Your task to perform on an android device: turn notification dots on Image 0: 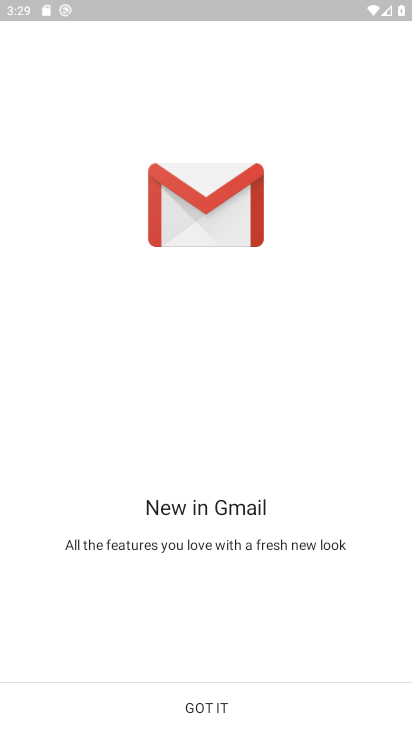
Step 0: click (193, 699)
Your task to perform on an android device: turn notification dots on Image 1: 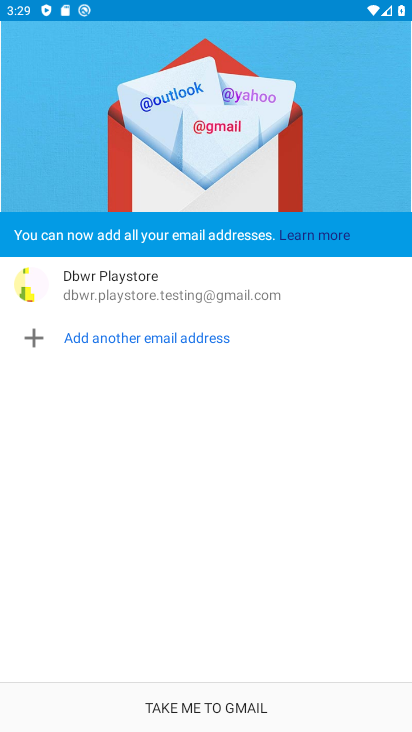
Step 1: press home button
Your task to perform on an android device: turn notification dots on Image 2: 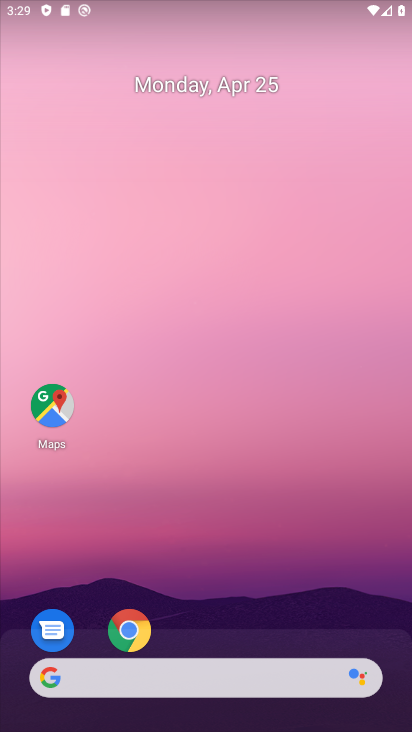
Step 2: drag from (308, 590) to (299, 41)
Your task to perform on an android device: turn notification dots on Image 3: 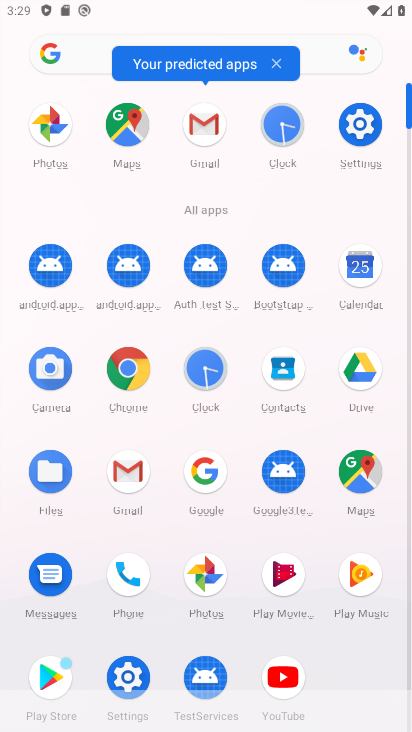
Step 3: click (370, 117)
Your task to perform on an android device: turn notification dots on Image 4: 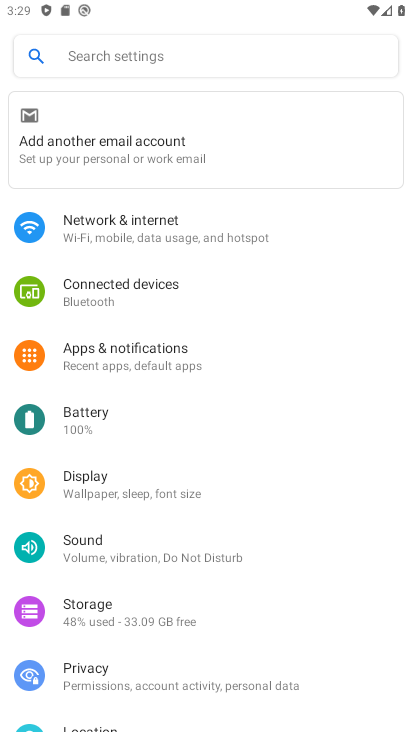
Step 4: click (182, 344)
Your task to perform on an android device: turn notification dots on Image 5: 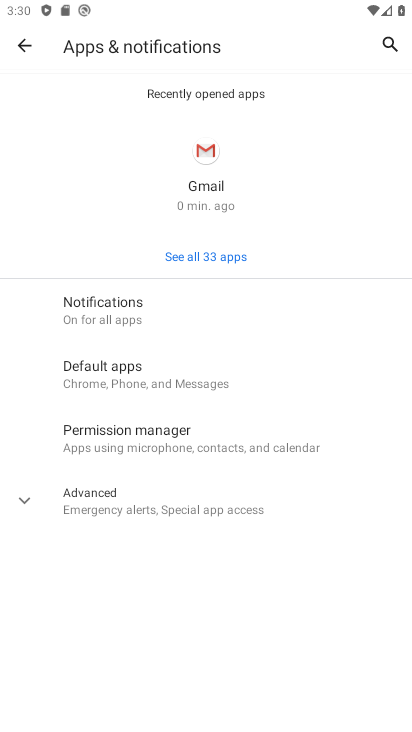
Step 5: click (159, 508)
Your task to perform on an android device: turn notification dots on Image 6: 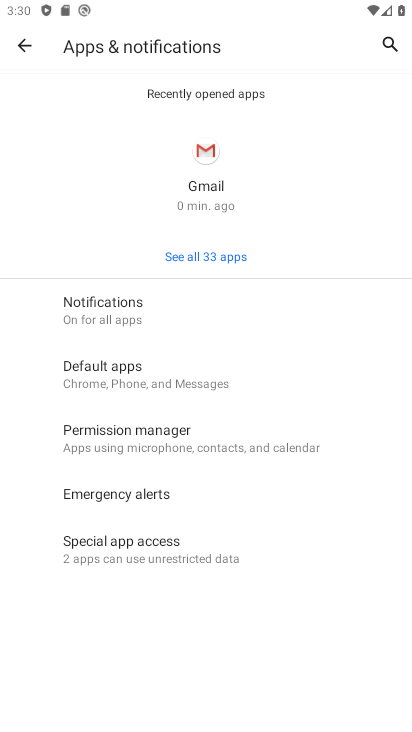
Step 6: drag from (174, 389) to (189, 274)
Your task to perform on an android device: turn notification dots on Image 7: 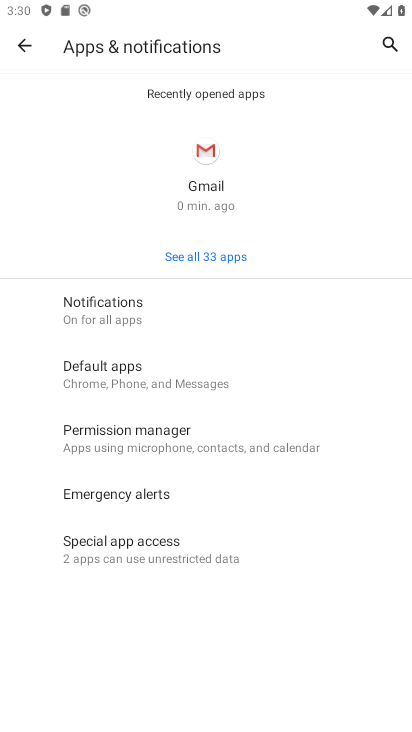
Step 7: click (109, 300)
Your task to perform on an android device: turn notification dots on Image 8: 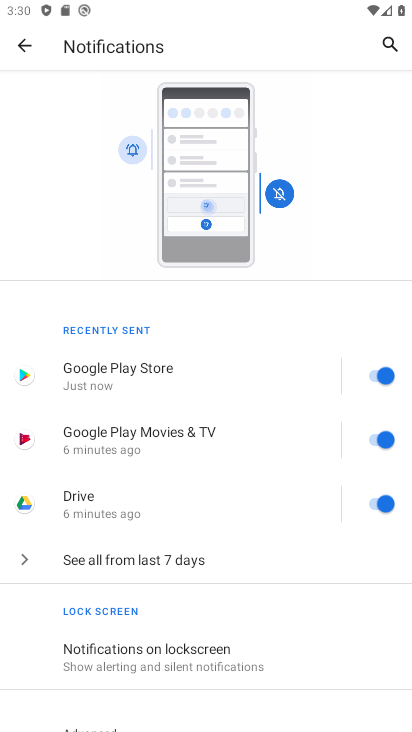
Step 8: drag from (212, 564) to (226, 82)
Your task to perform on an android device: turn notification dots on Image 9: 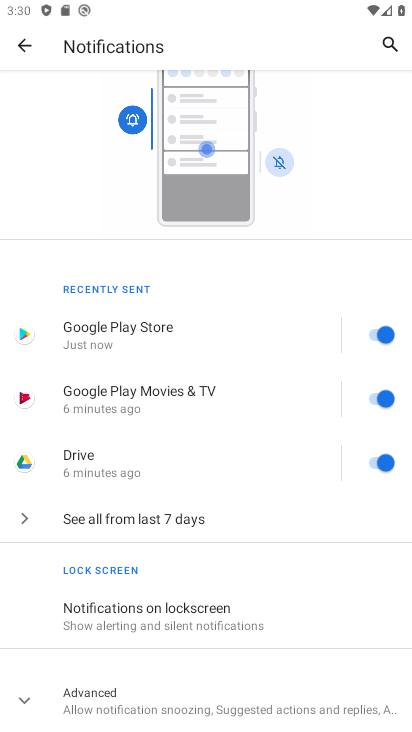
Step 9: drag from (222, 464) to (270, 120)
Your task to perform on an android device: turn notification dots on Image 10: 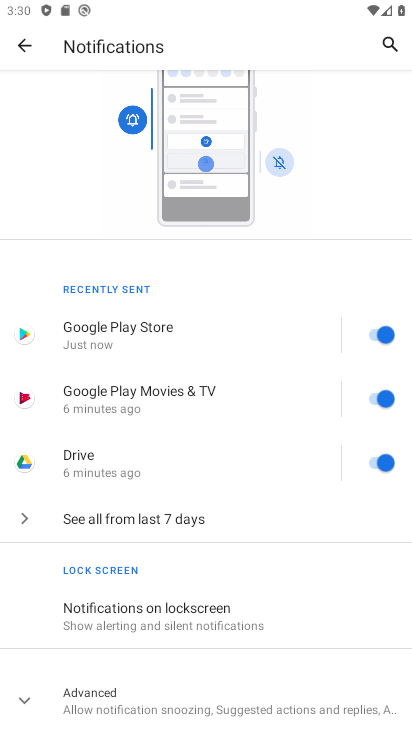
Step 10: click (127, 697)
Your task to perform on an android device: turn notification dots on Image 11: 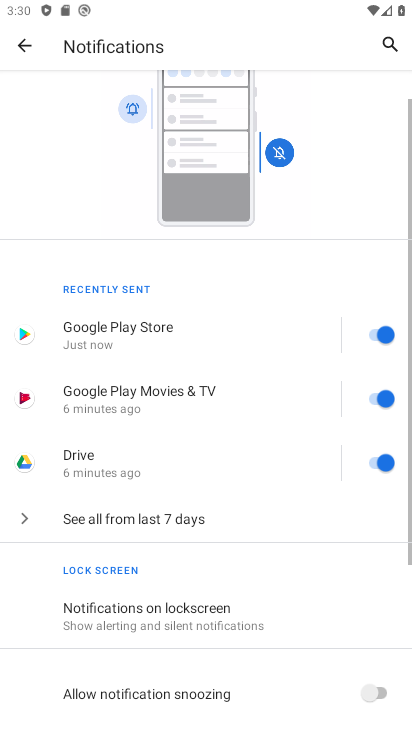
Step 11: drag from (268, 341) to (277, 241)
Your task to perform on an android device: turn notification dots on Image 12: 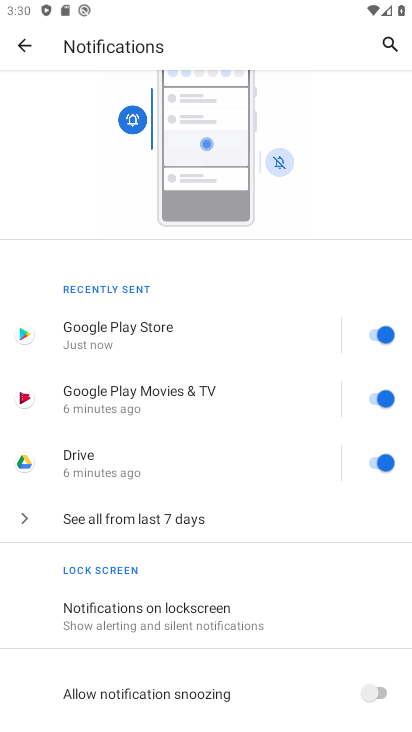
Step 12: drag from (168, 527) to (211, 245)
Your task to perform on an android device: turn notification dots on Image 13: 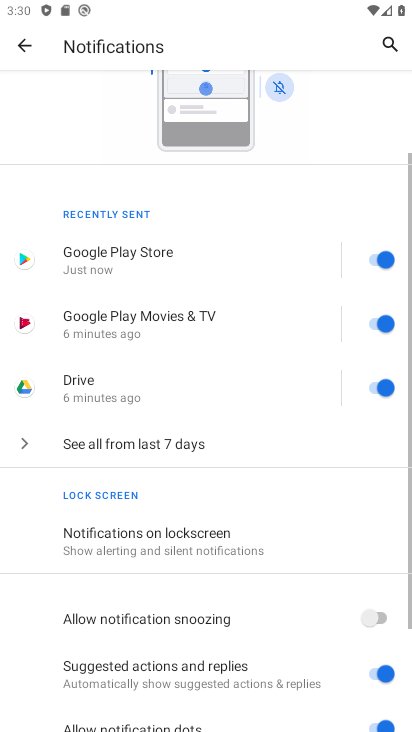
Step 13: drag from (205, 662) to (273, 277)
Your task to perform on an android device: turn notification dots on Image 14: 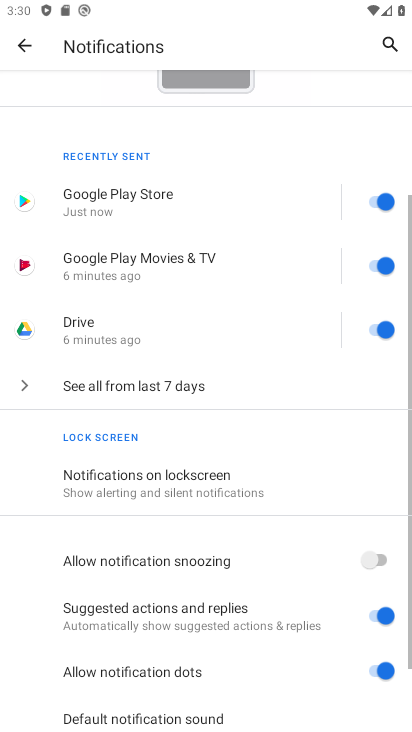
Step 14: drag from (231, 632) to (231, 347)
Your task to perform on an android device: turn notification dots on Image 15: 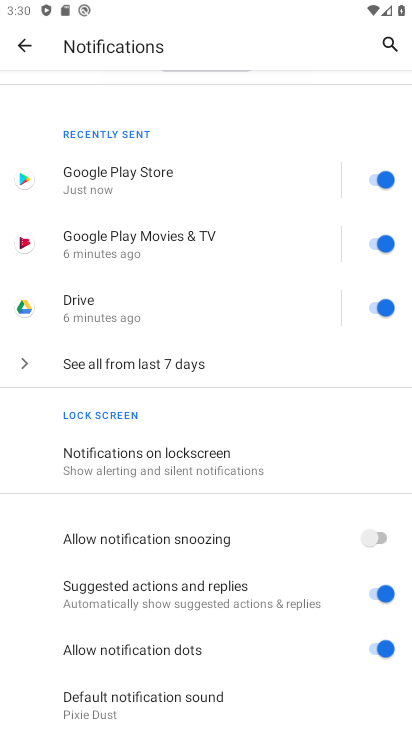
Step 15: click (376, 647)
Your task to perform on an android device: turn notification dots on Image 16: 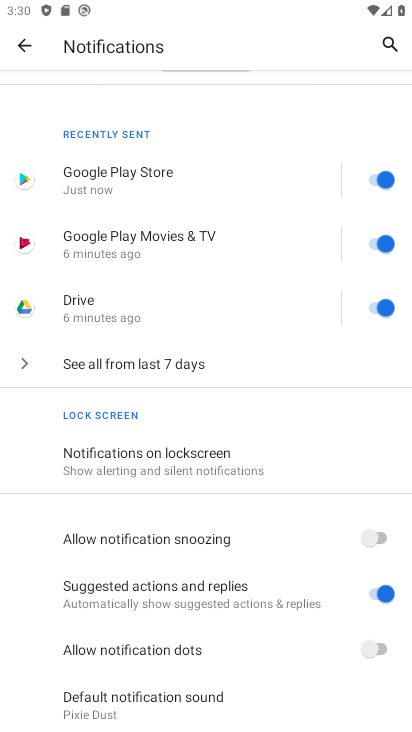
Step 16: task complete